Your task to perform on an android device: Go to location settings Image 0: 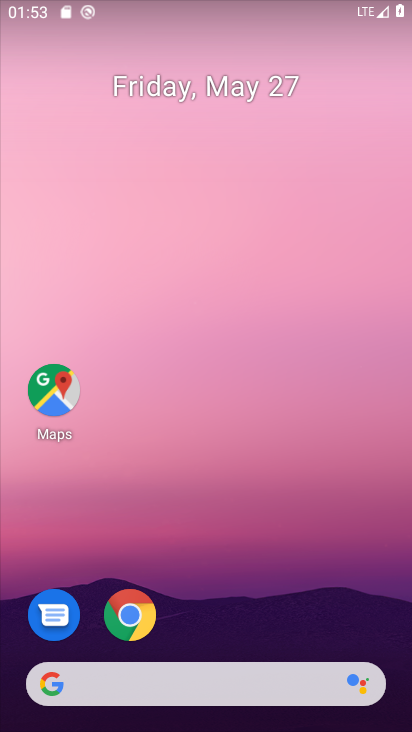
Step 0: drag from (328, 615) to (327, 140)
Your task to perform on an android device: Go to location settings Image 1: 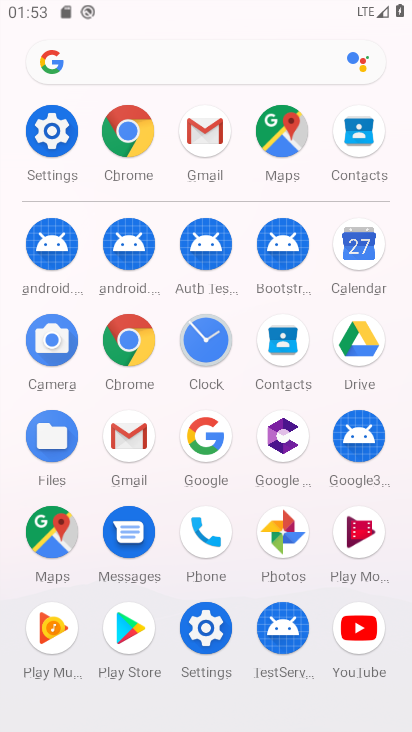
Step 1: click (58, 138)
Your task to perform on an android device: Go to location settings Image 2: 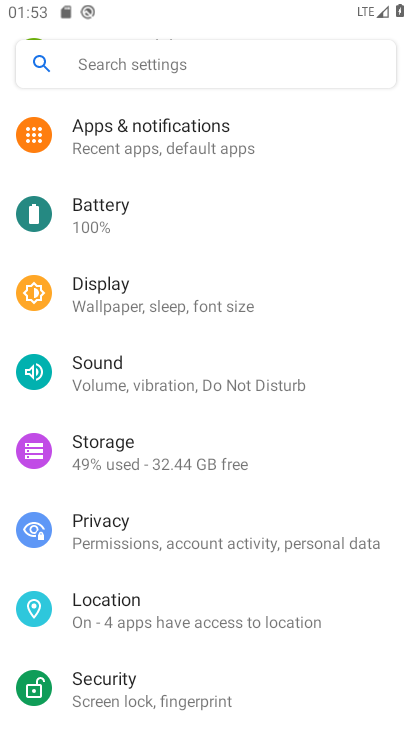
Step 2: drag from (341, 313) to (343, 442)
Your task to perform on an android device: Go to location settings Image 3: 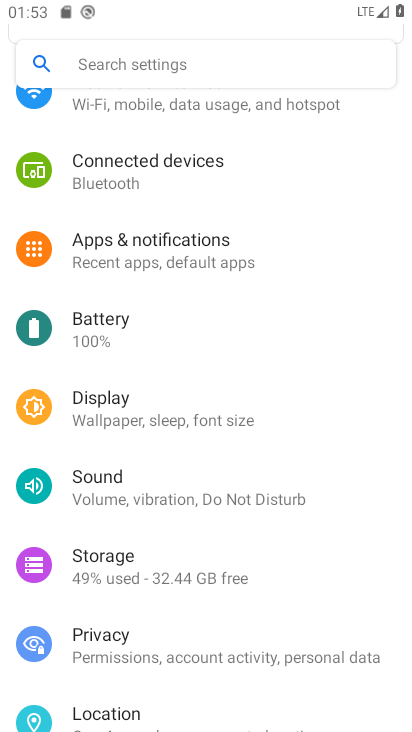
Step 3: drag from (356, 281) to (361, 404)
Your task to perform on an android device: Go to location settings Image 4: 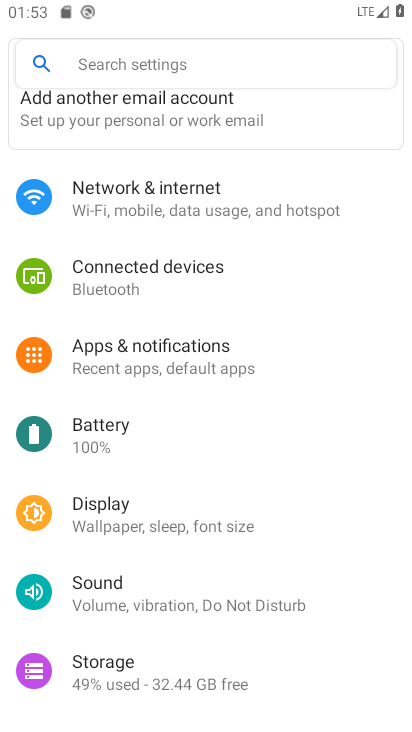
Step 4: drag from (352, 261) to (349, 408)
Your task to perform on an android device: Go to location settings Image 5: 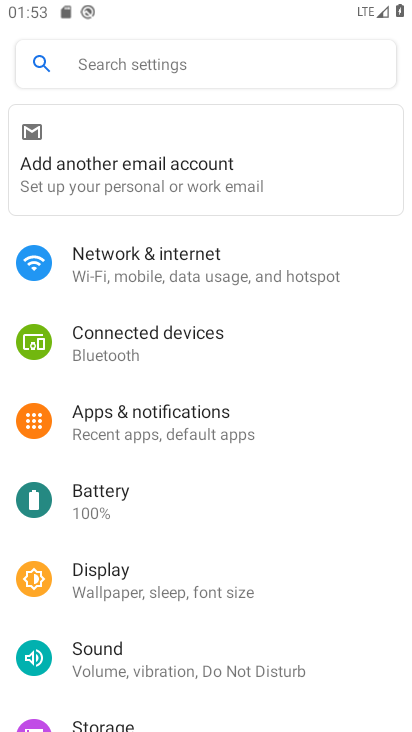
Step 5: drag from (336, 456) to (338, 376)
Your task to perform on an android device: Go to location settings Image 6: 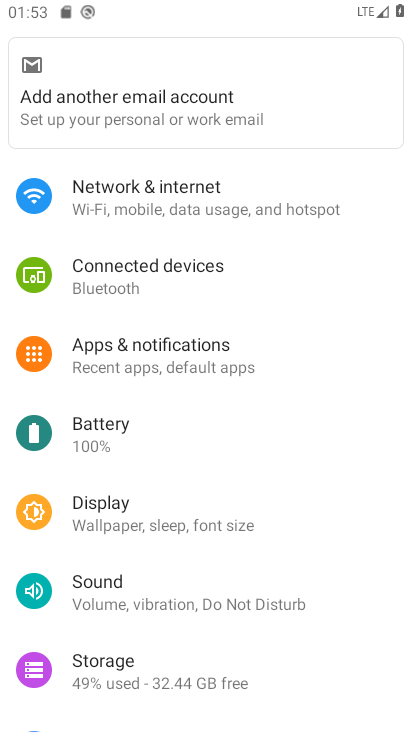
Step 6: drag from (338, 486) to (339, 397)
Your task to perform on an android device: Go to location settings Image 7: 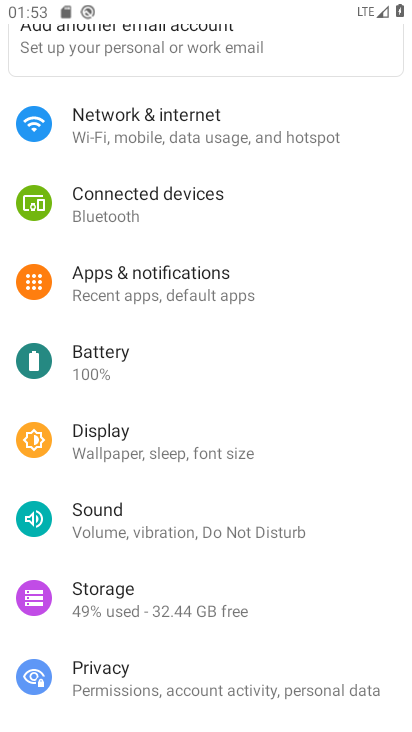
Step 7: drag from (340, 482) to (344, 394)
Your task to perform on an android device: Go to location settings Image 8: 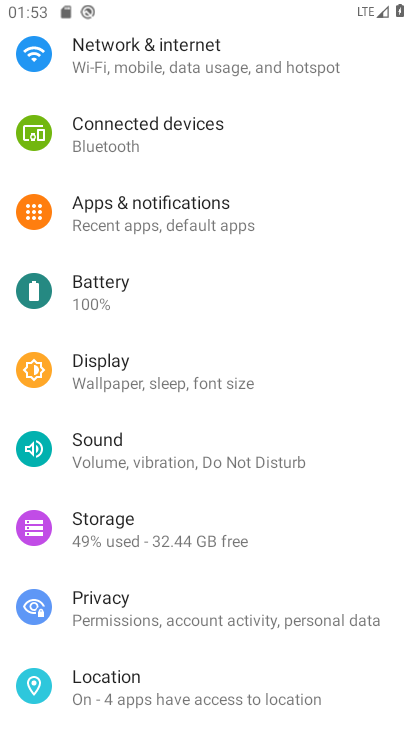
Step 8: drag from (344, 500) to (349, 428)
Your task to perform on an android device: Go to location settings Image 9: 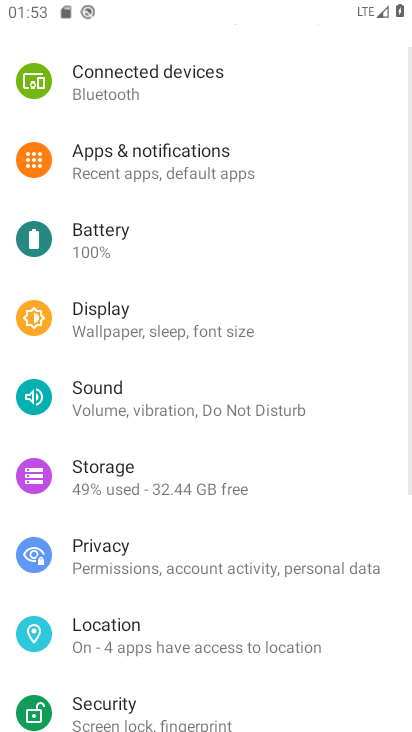
Step 9: drag from (347, 490) to (352, 404)
Your task to perform on an android device: Go to location settings Image 10: 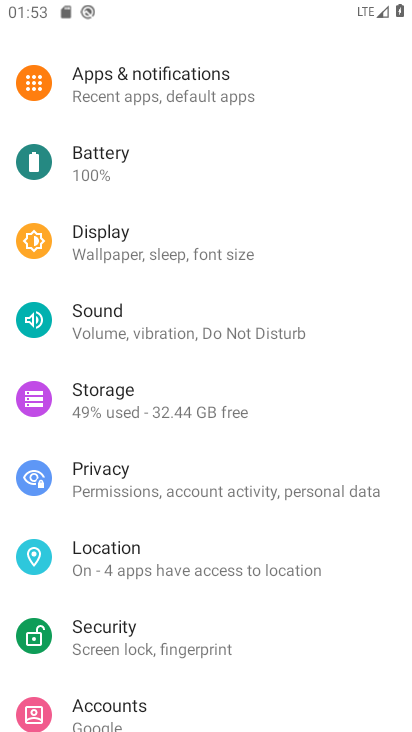
Step 10: drag from (356, 507) to (362, 408)
Your task to perform on an android device: Go to location settings Image 11: 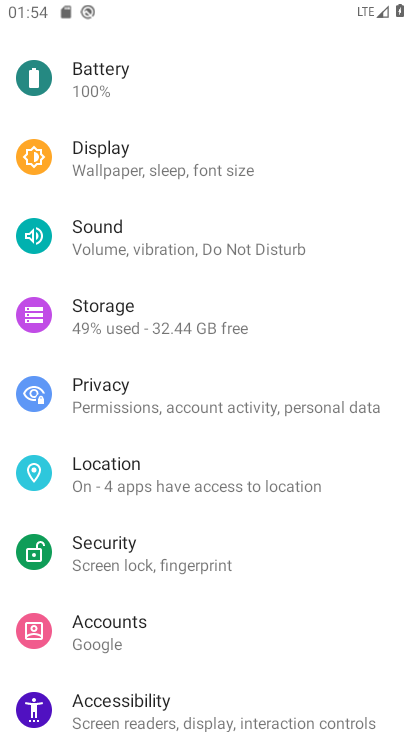
Step 11: drag from (354, 525) to (354, 436)
Your task to perform on an android device: Go to location settings Image 12: 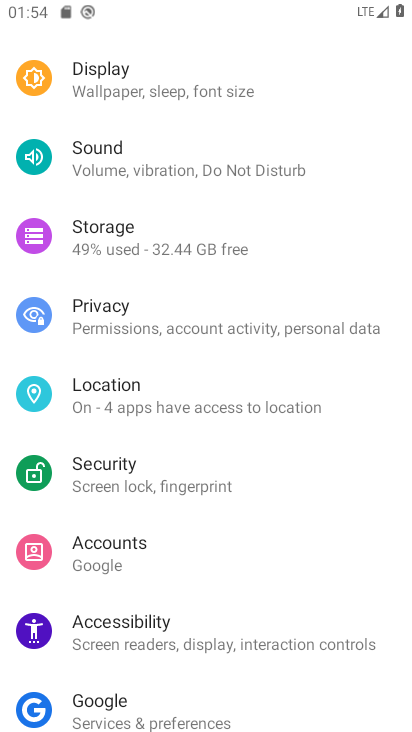
Step 12: drag from (342, 492) to (333, 400)
Your task to perform on an android device: Go to location settings Image 13: 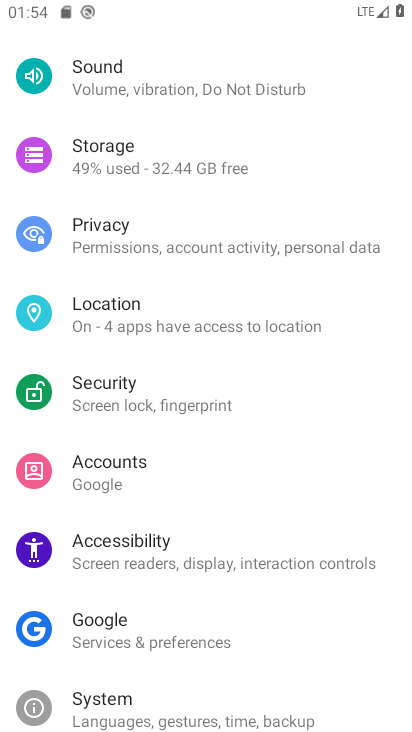
Step 13: drag from (336, 488) to (332, 404)
Your task to perform on an android device: Go to location settings Image 14: 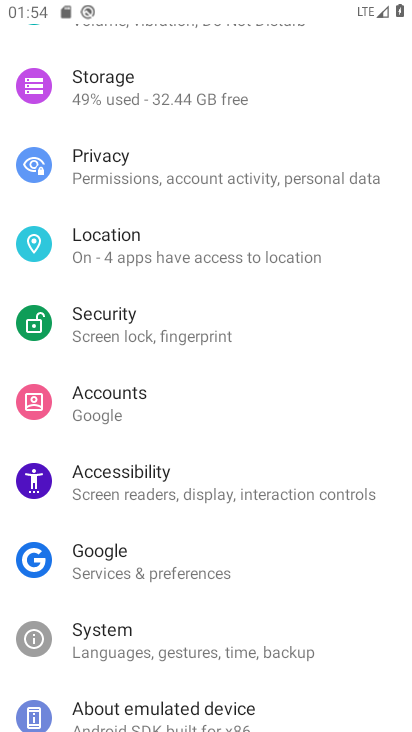
Step 14: click (254, 239)
Your task to perform on an android device: Go to location settings Image 15: 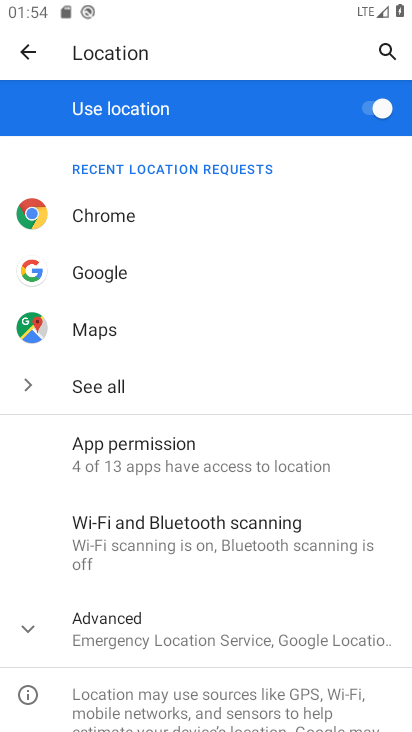
Step 15: task complete